Your task to perform on an android device: Go to Reddit.com Image 0: 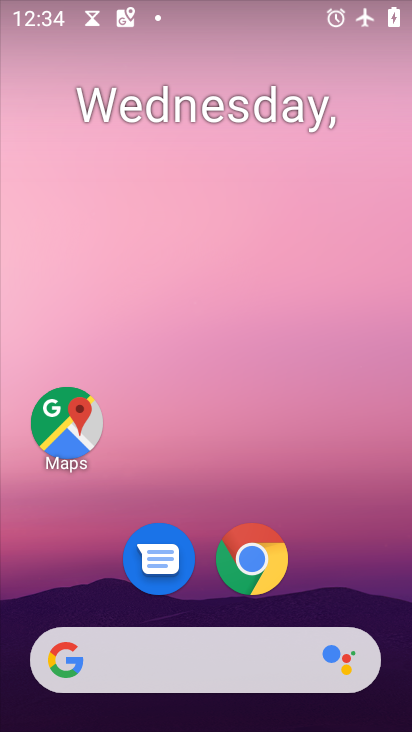
Step 0: drag from (351, 603) to (239, 35)
Your task to perform on an android device: Go to Reddit.com Image 1: 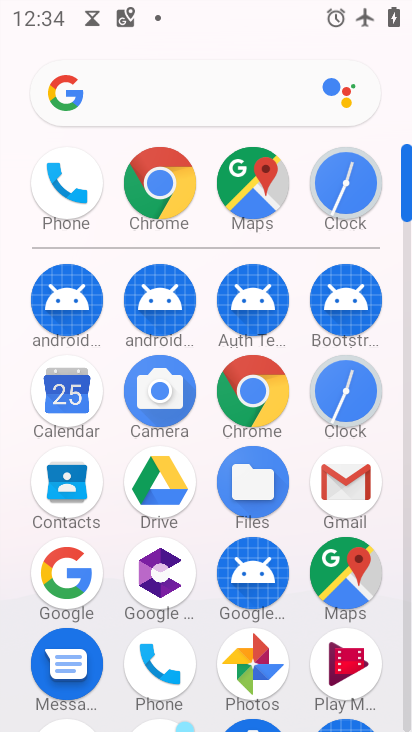
Step 1: click (253, 387)
Your task to perform on an android device: Go to Reddit.com Image 2: 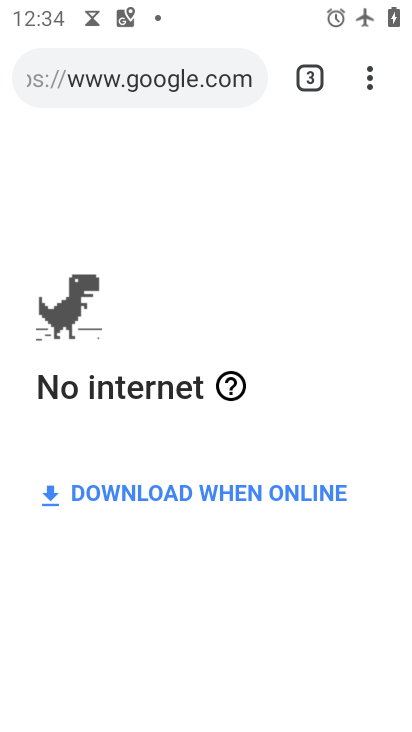
Step 2: click (185, 74)
Your task to perform on an android device: Go to Reddit.com Image 3: 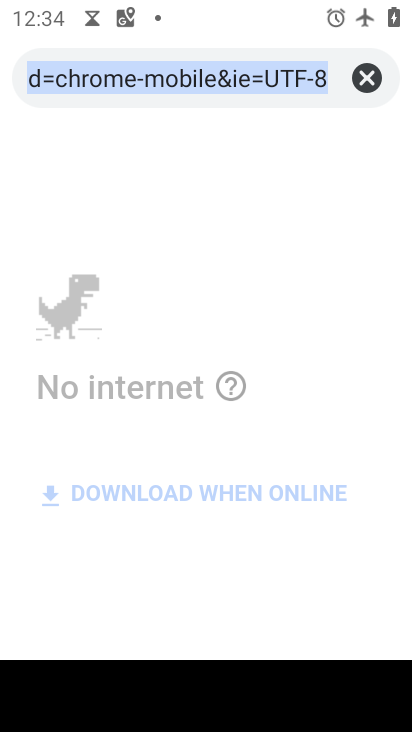
Step 3: click (369, 77)
Your task to perform on an android device: Go to Reddit.com Image 4: 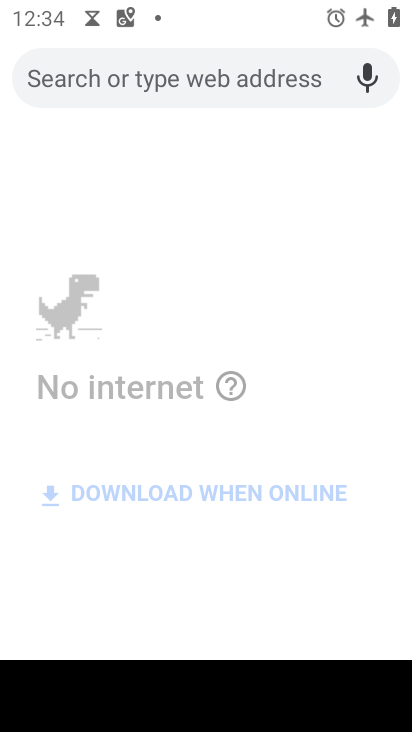
Step 4: type "reddit"
Your task to perform on an android device: Go to Reddit.com Image 5: 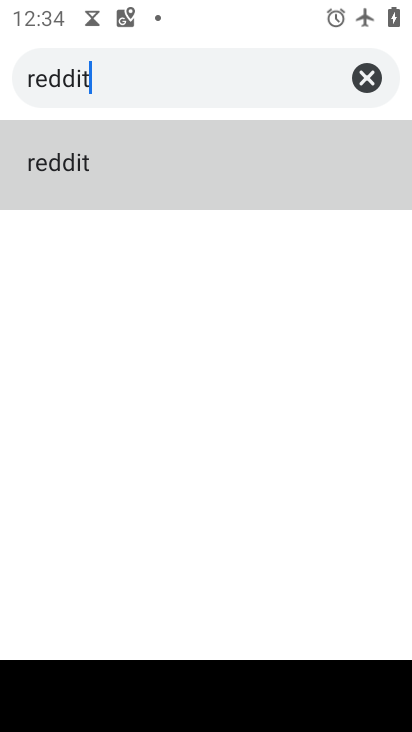
Step 5: click (46, 170)
Your task to perform on an android device: Go to Reddit.com Image 6: 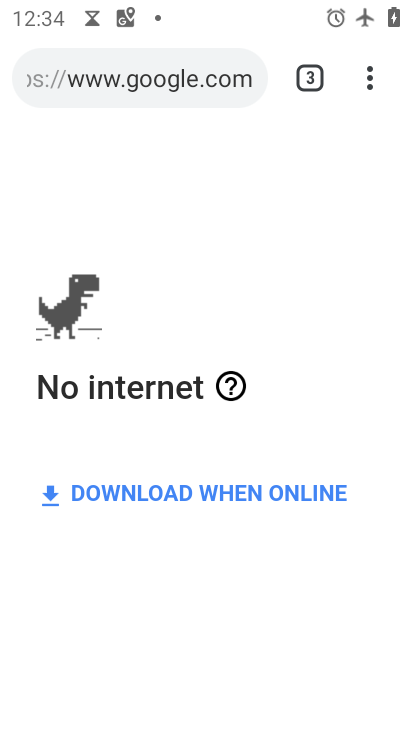
Step 6: task complete